Your task to perform on an android device: turn off notifications settings in the gmail app Image 0: 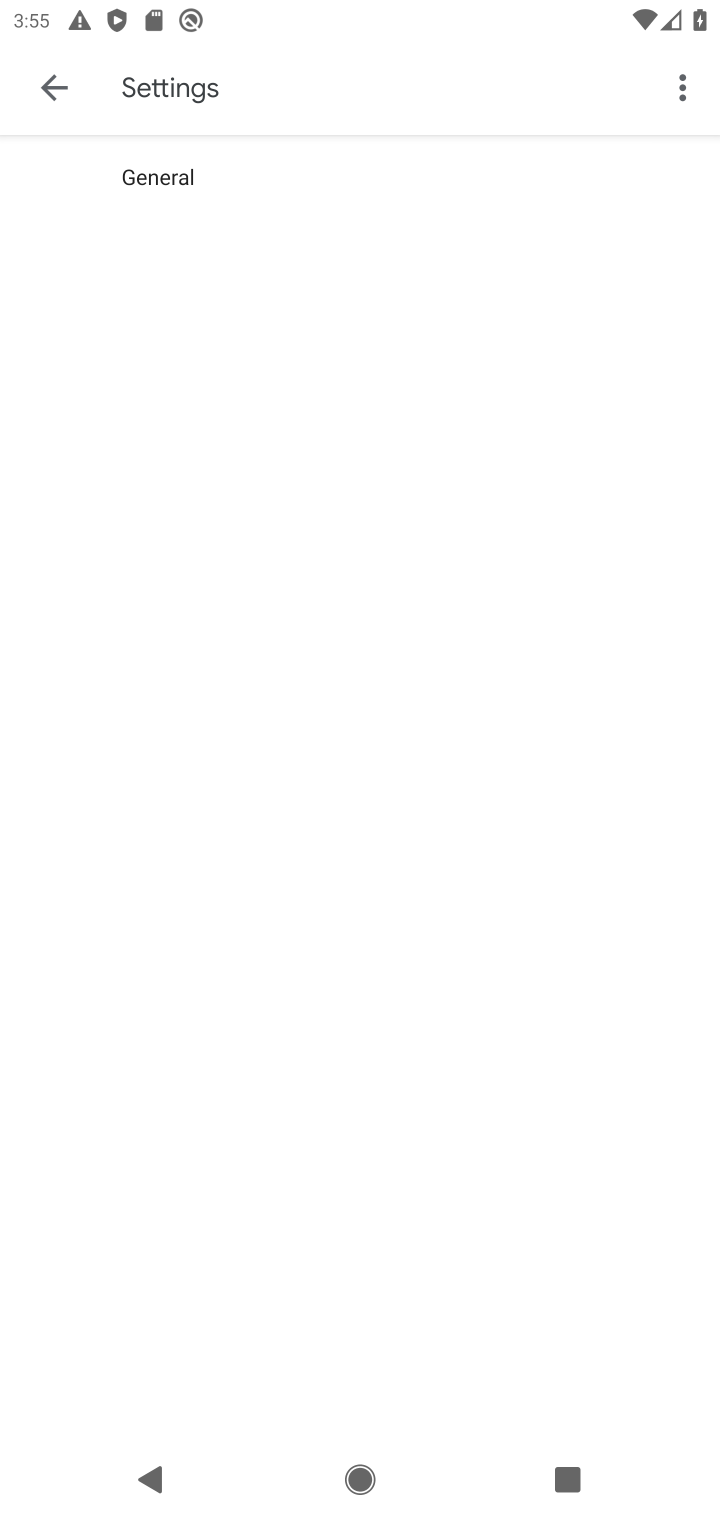
Step 0: press home button
Your task to perform on an android device: turn off notifications settings in the gmail app Image 1: 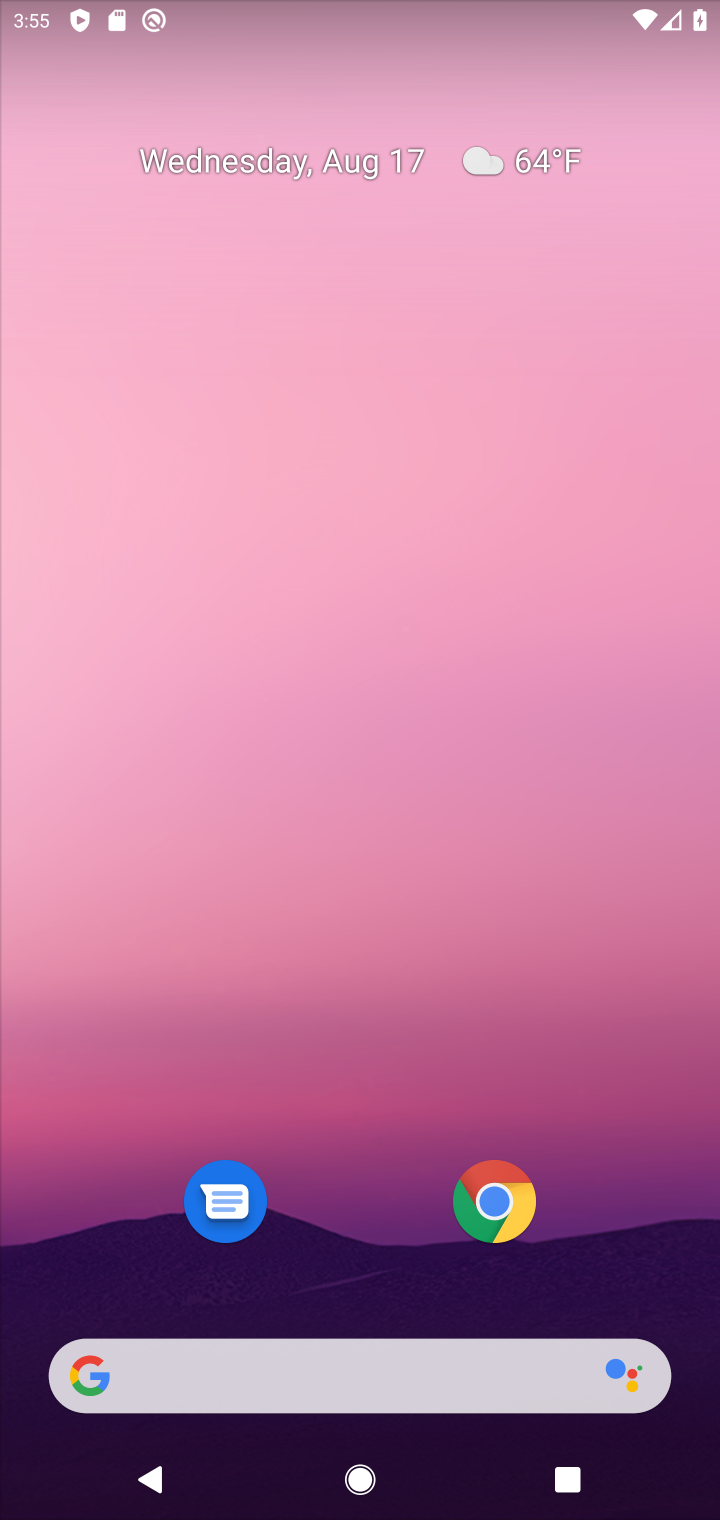
Step 1: drag from (379, 1293) to (419, 27)
Your task to perform on an android device: turn off notifications settings in the gmail app Image 2: 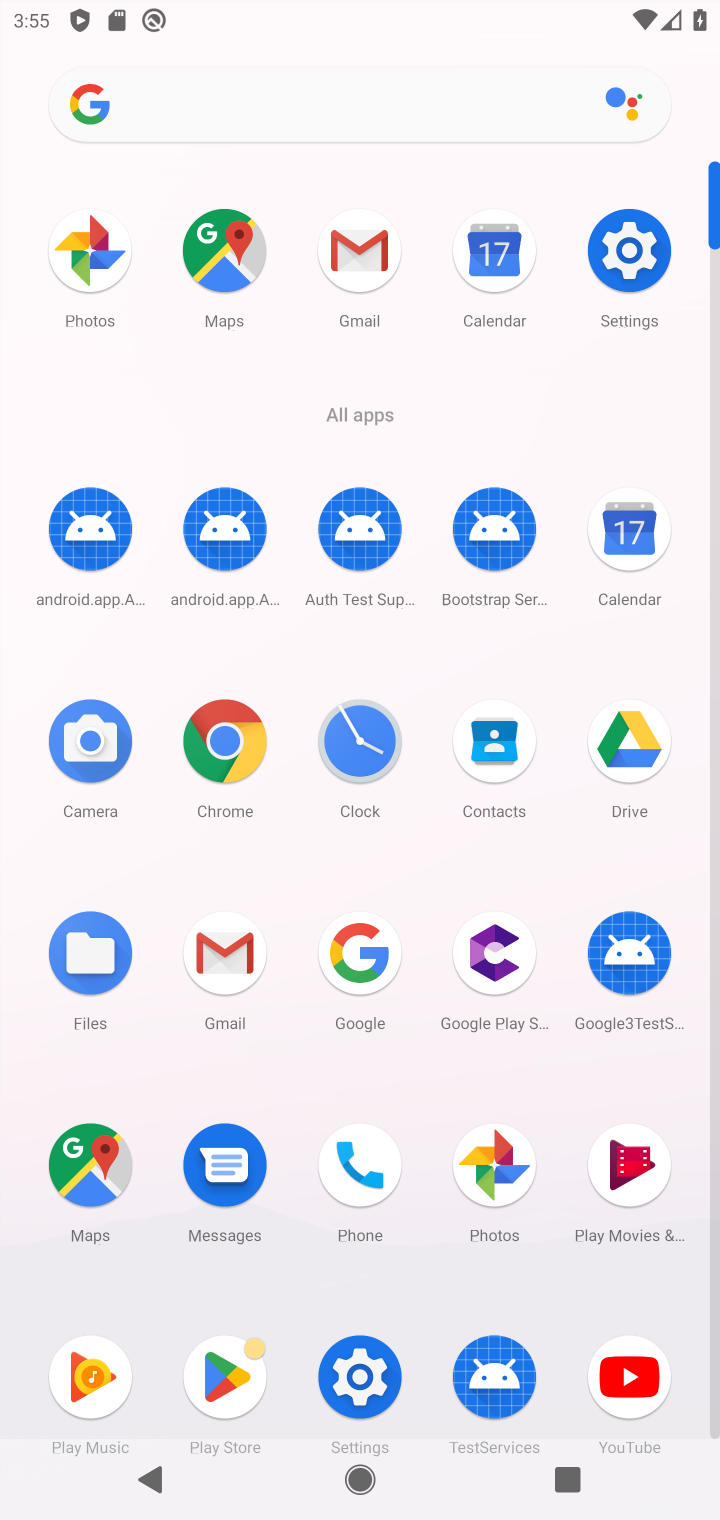
Step 2: click (227, 992)
Your task to perform on an android device: turn off notifications settings in the gmail app Image 3: 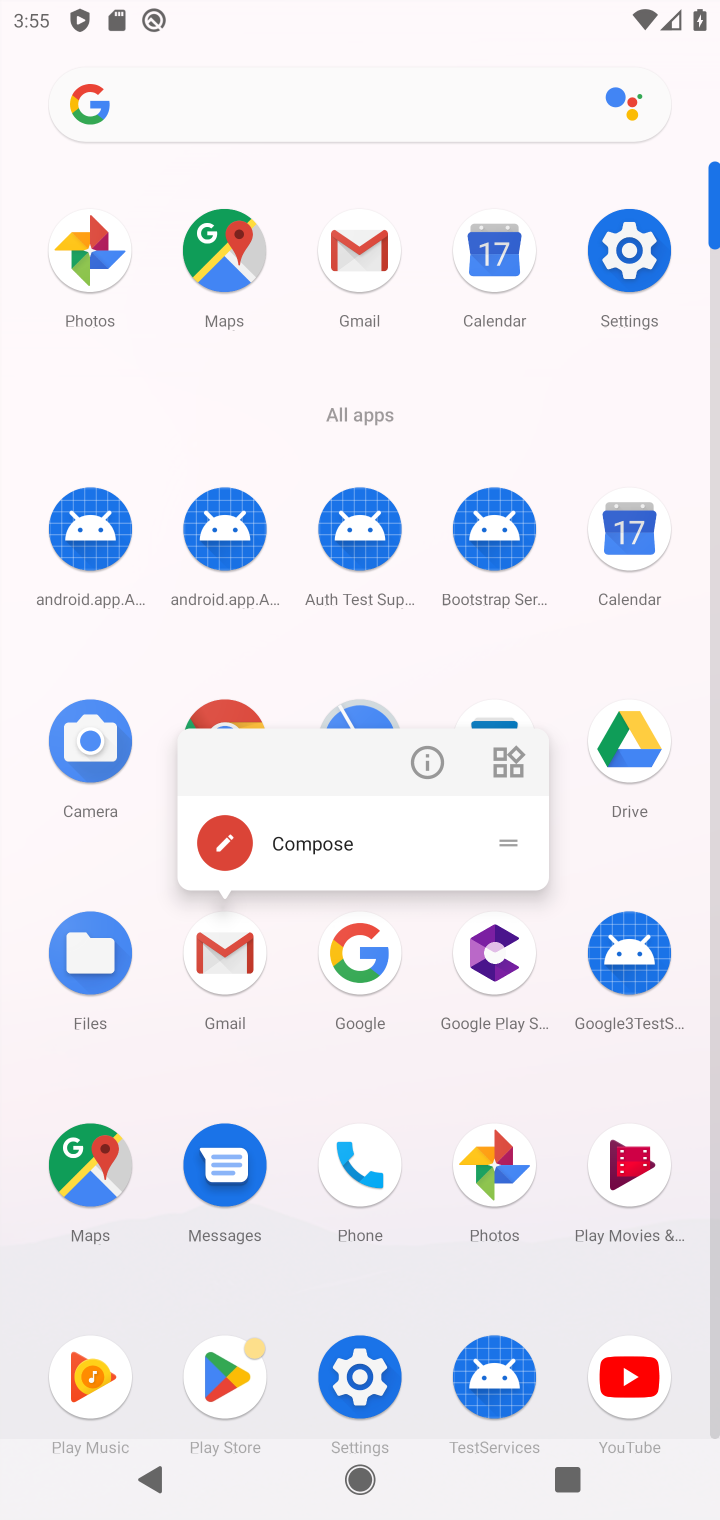
Step 3: click (233, 1006)
Your task to perform on an android device: turn off notifications settings in the gmail app Image 4: 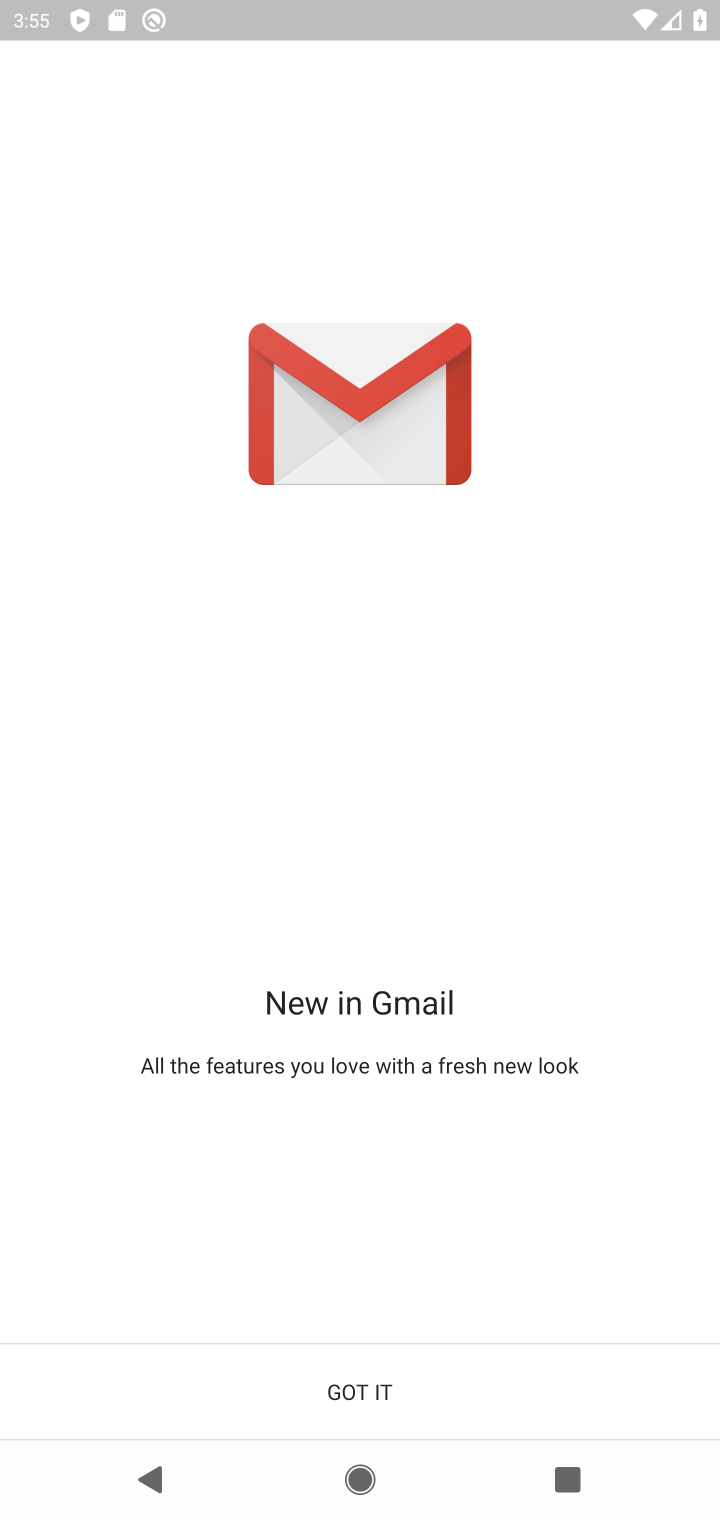
Step 4: click (414, 1387)
Your task to perform on an android device: turn off notifications settings in the gmail app Image 5: 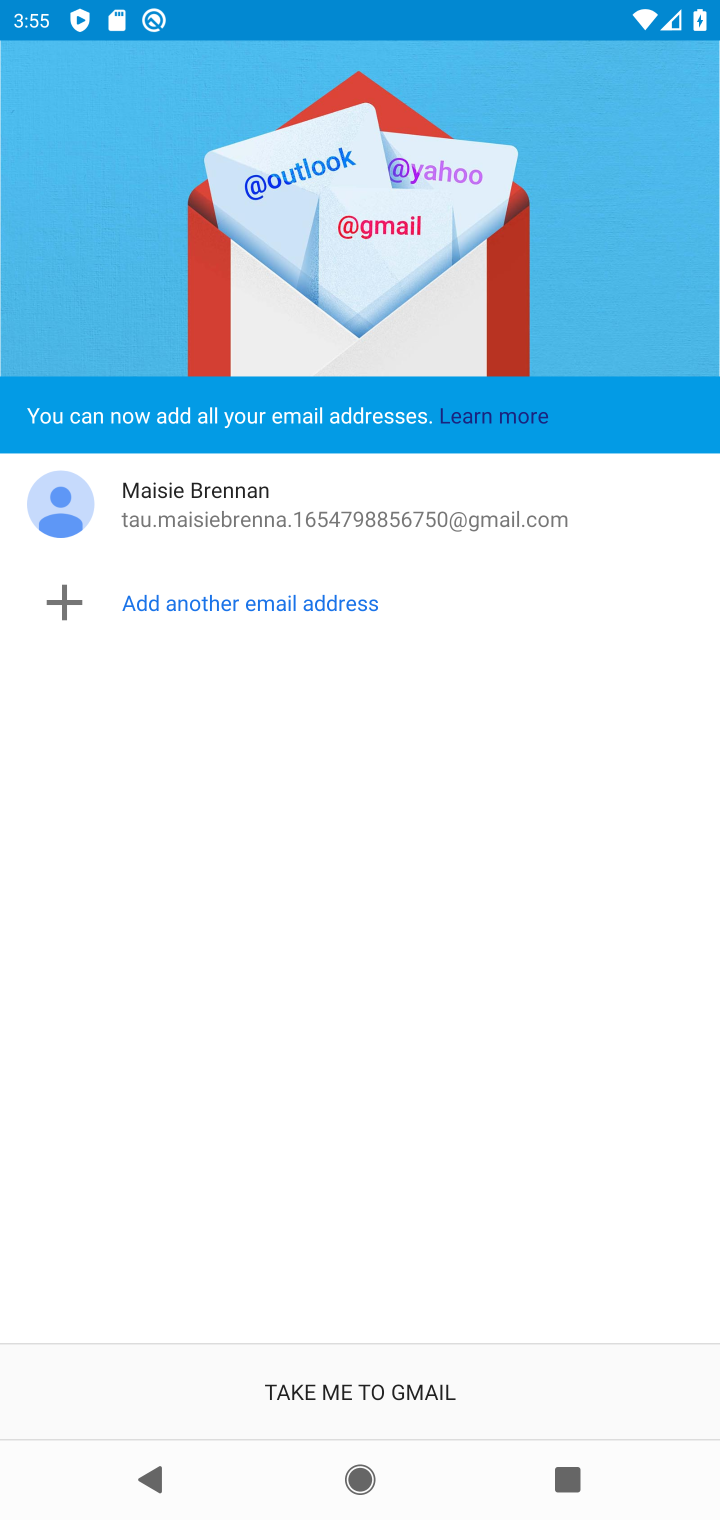
Step 5: click (414, 1383)
Your task to perform on an android device: turn off notifications settings in the gmail app Image 6: 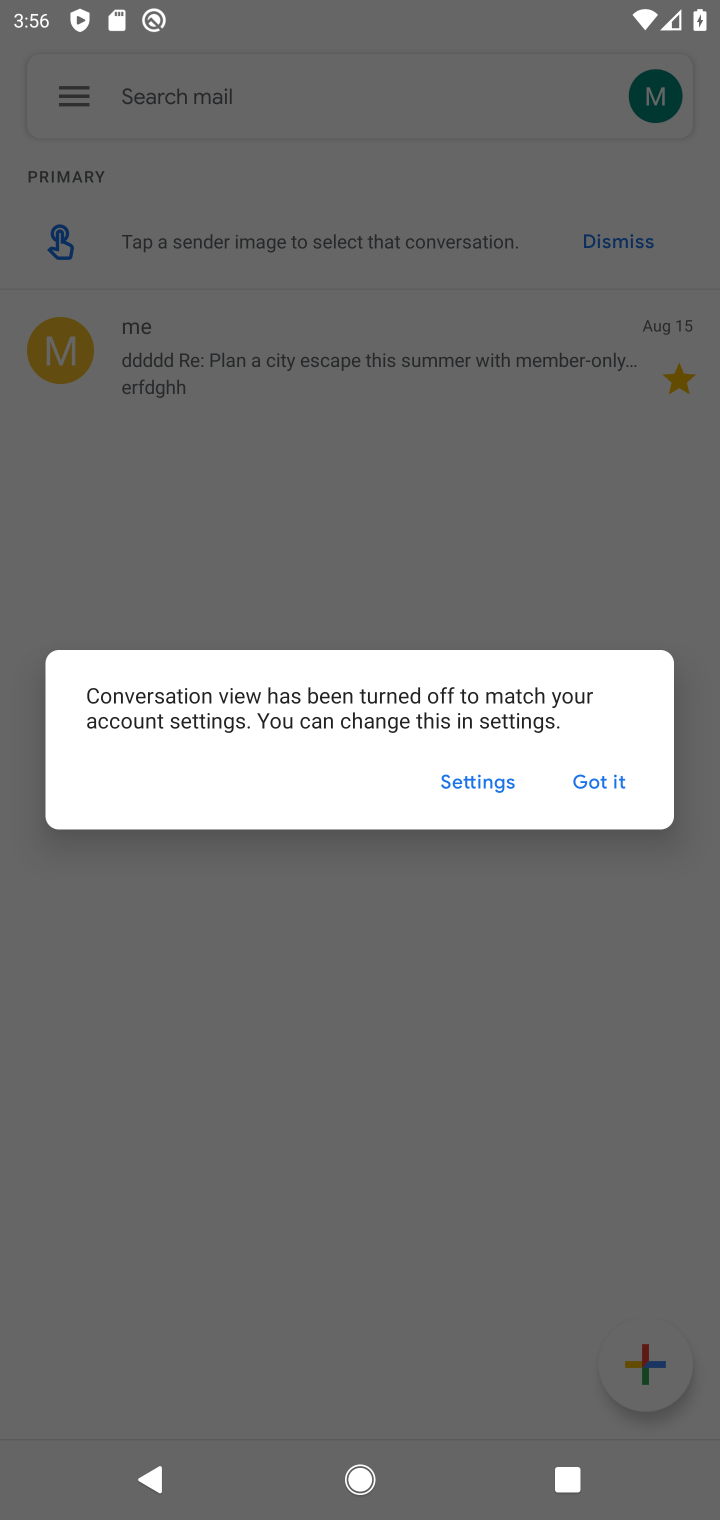
Step 6: click (620, 770)
Your task to perform on an android device: turn off notifications settings in the gmail app Image 7: 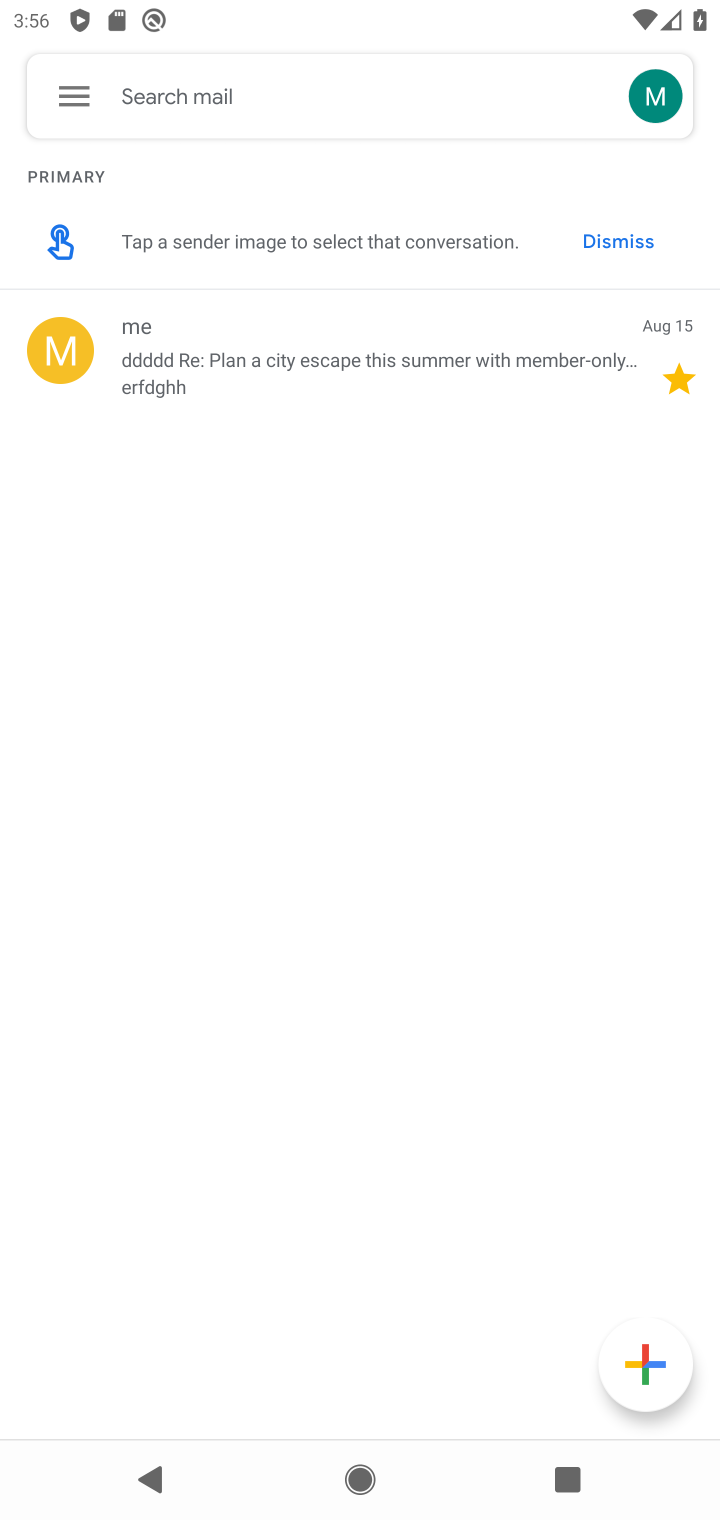
Step 7: click (61, 106)
Your task to perform on an android device: turn off notifications settings in the gmail app Image 8: 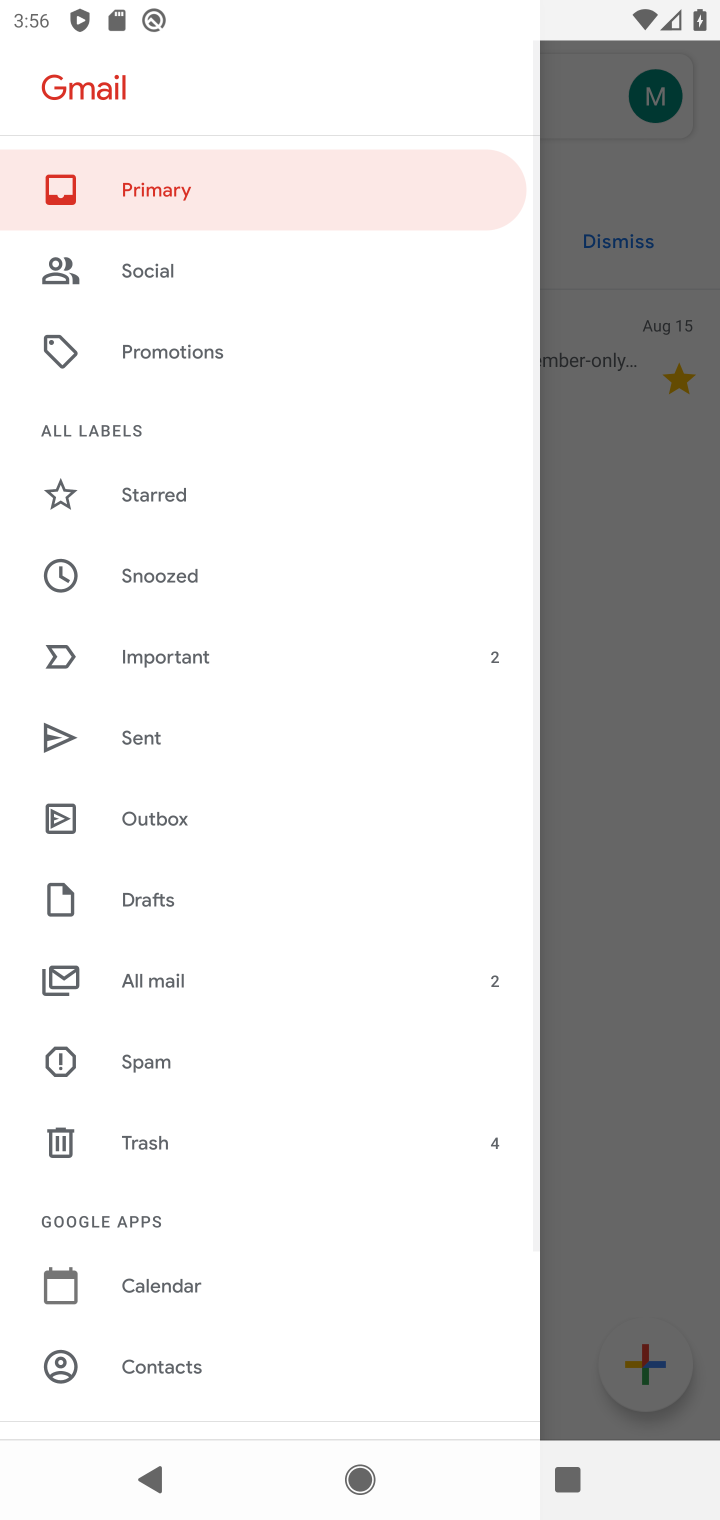
Step 8: drag from (153, 1281) to (229, 560)
Your task to perform on an android device: turn off notifications settings in the gmail app Image 9: 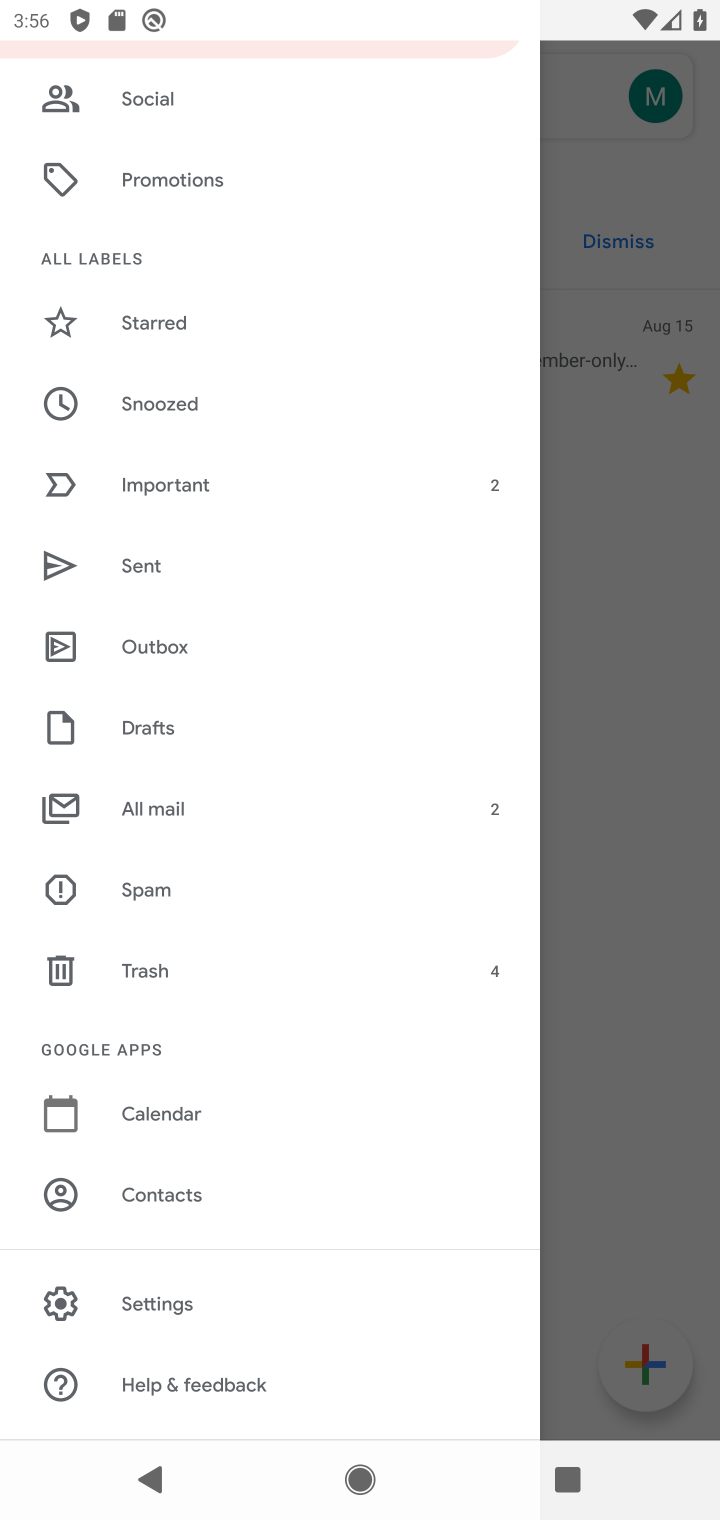
Step 9: click (152, 1306)
Your task to perform on an android device: turn off notifications settings in the gmail app Image 10: 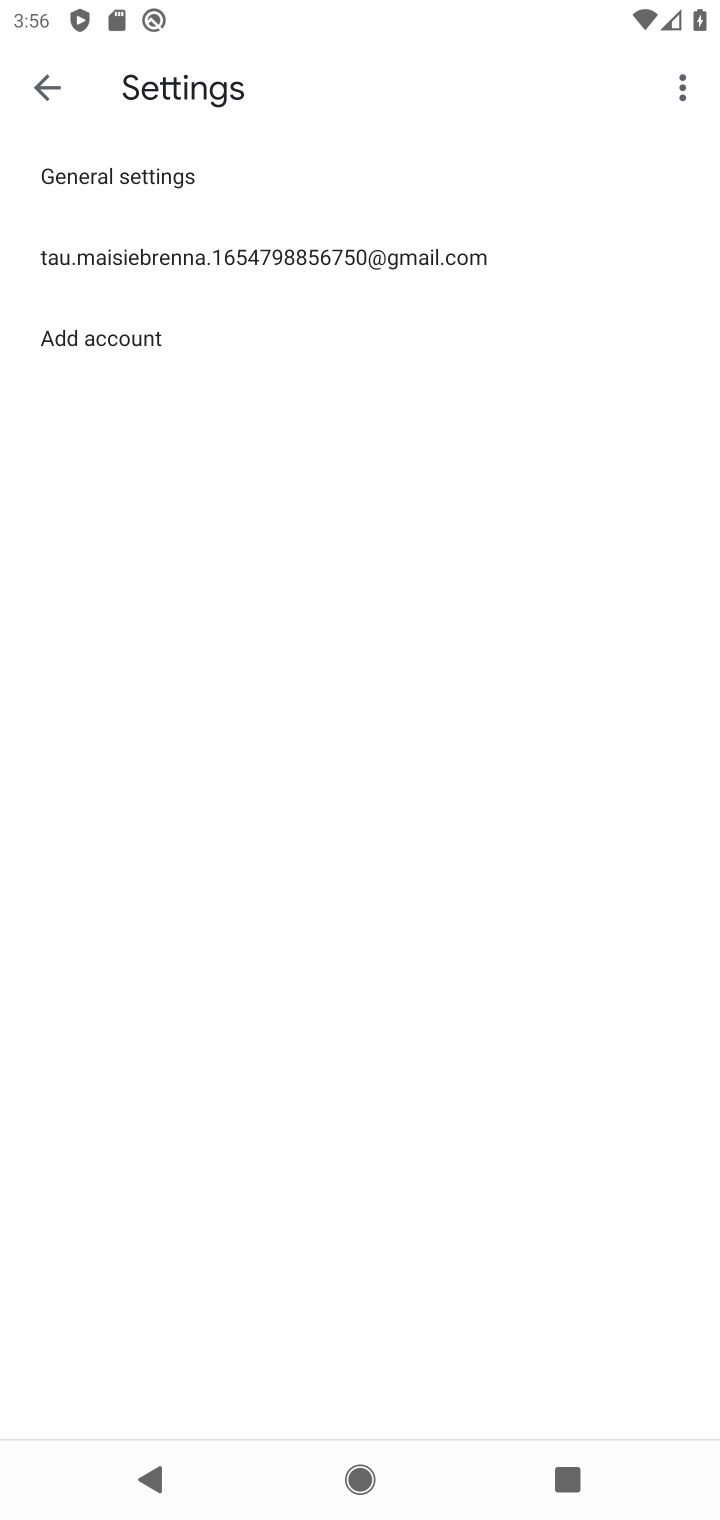
Step 10: click (166, 162)
Your task to perform on an android device: turn off notifications settings in the gmail app Image 11: 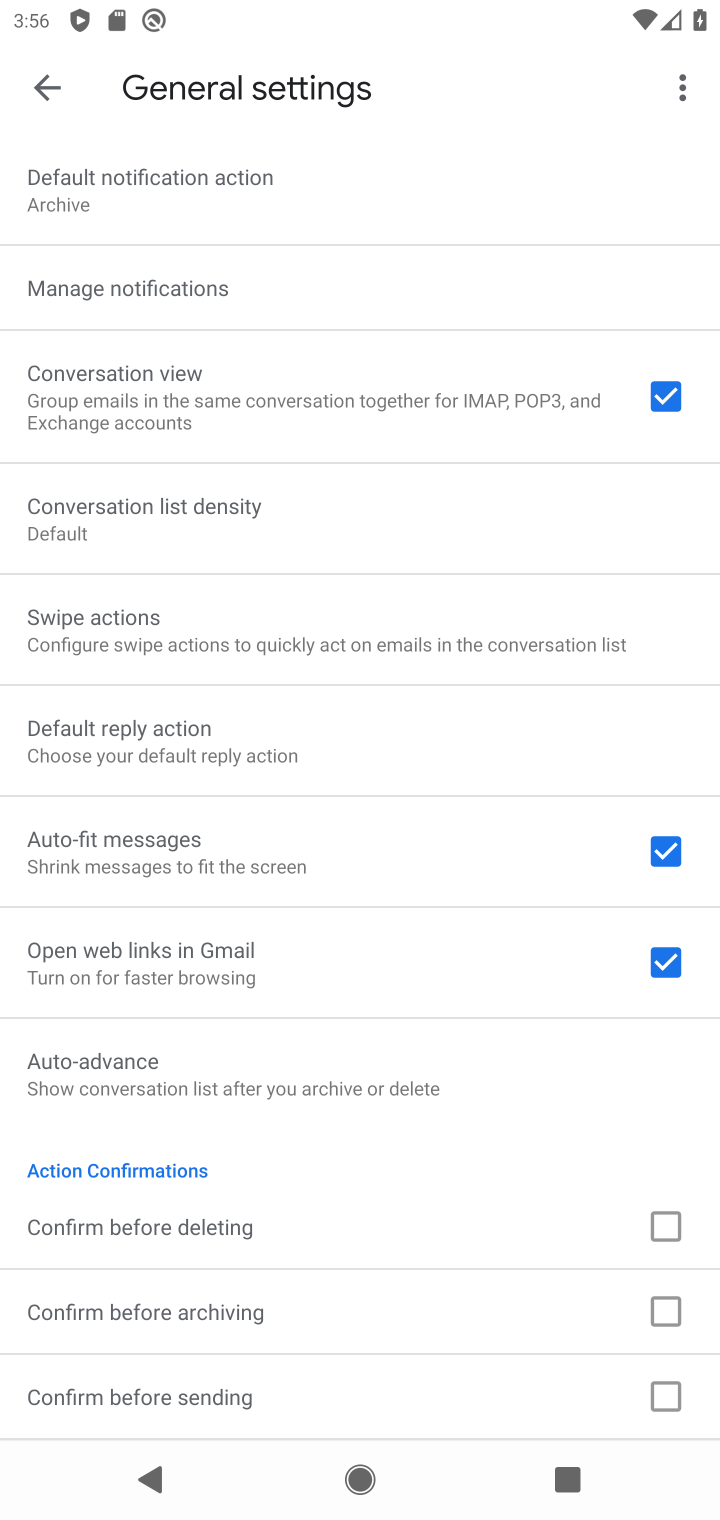
Step 11: click (215, 261)
Your task to perform on an android device: turn off notifications settings in the gmail app Image 12: 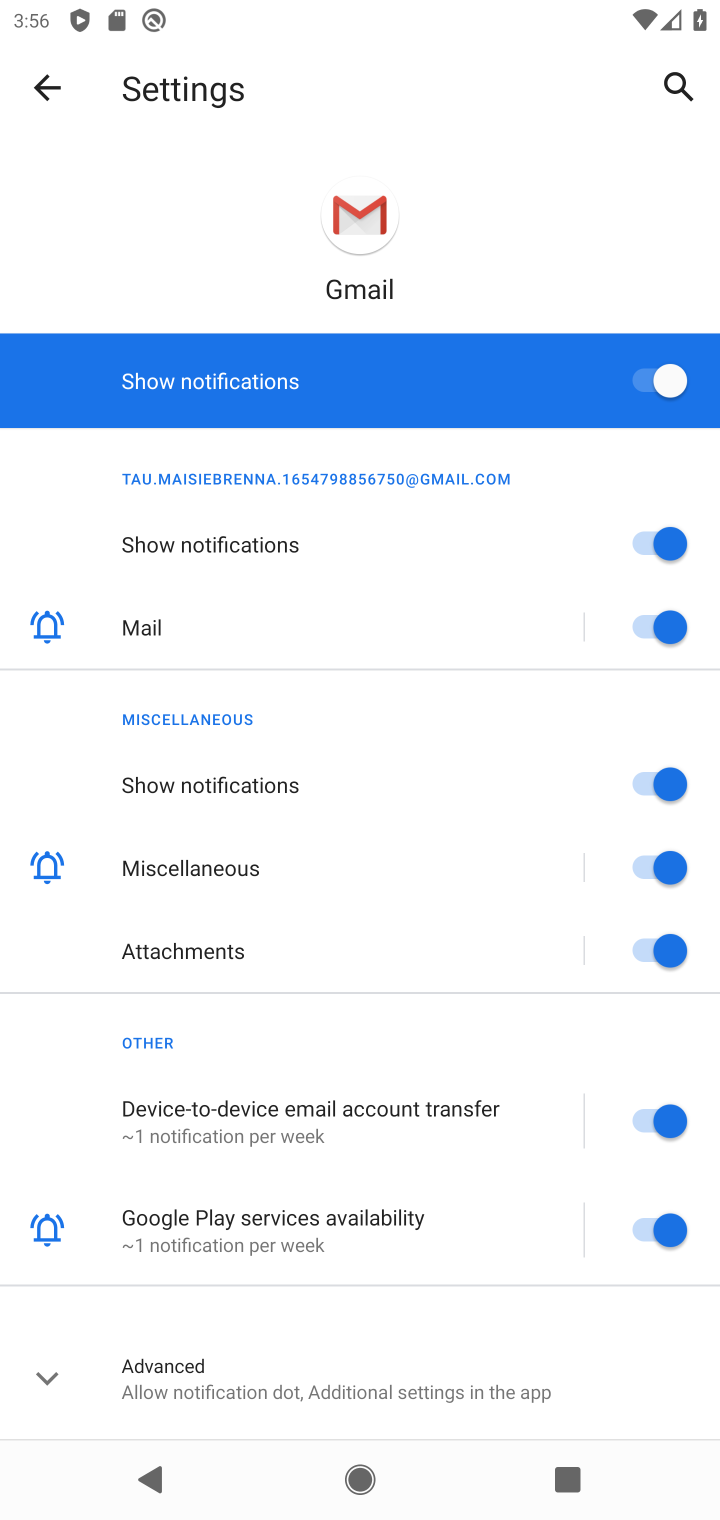
Step 12: click (628, 380)
Your task to perform on an android device: turn off notifications settings in the gmail app Image 13: 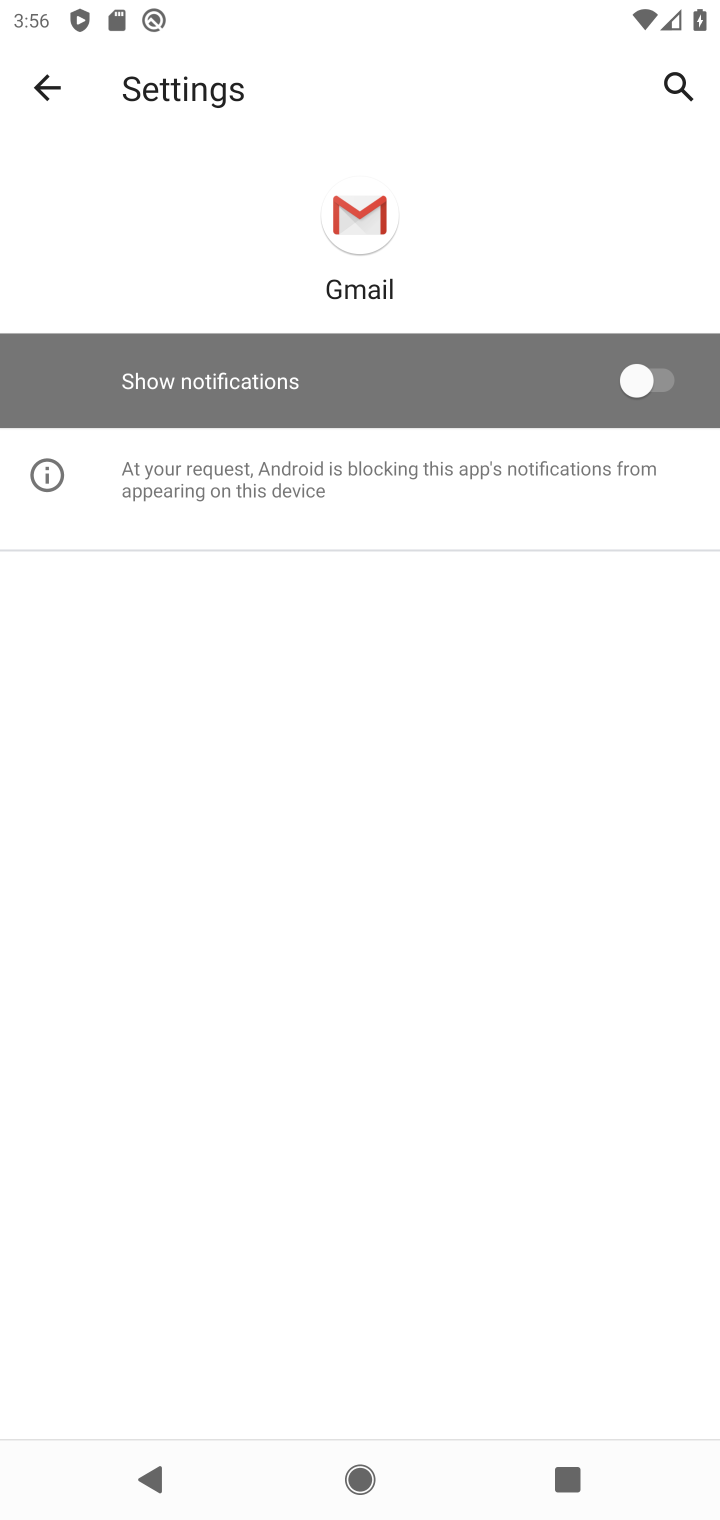
Step 13: task complete